Your task to perform on an android device: see sites visited before in the chrome app Image 0: 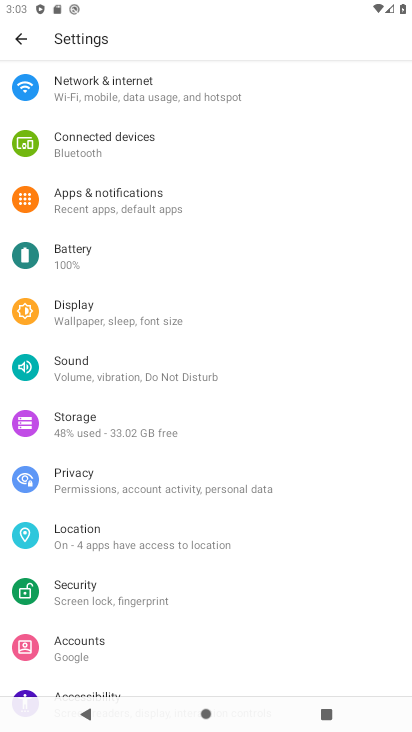
Step 0: press home button
Your task to perform on an android device: see sites visited before in the chrome app Image 1: 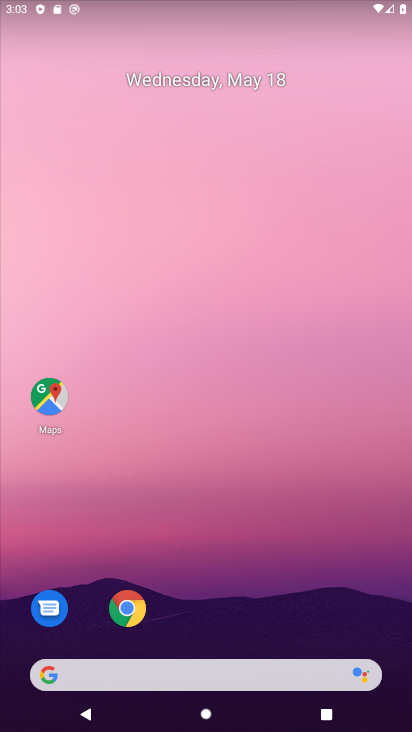
Step 1: drag from (163, 649) to (209, 313)
Your task to perform on an android device: see sites visited before in the chrome app Image 2: 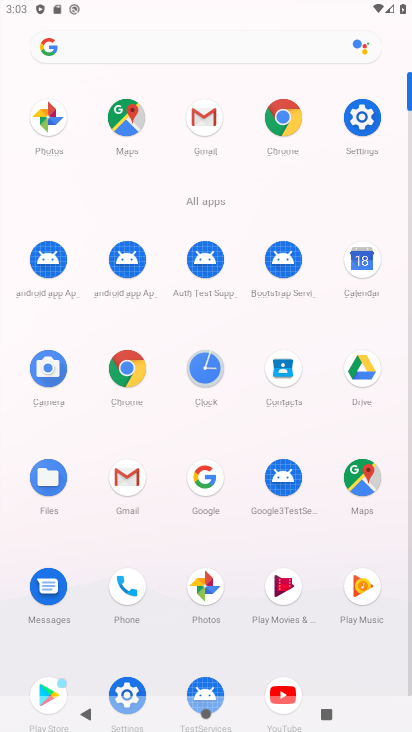
Step 2: click (291, 79)
Your task to perform on an android device: see sites visited before in the chrome app Image 3: 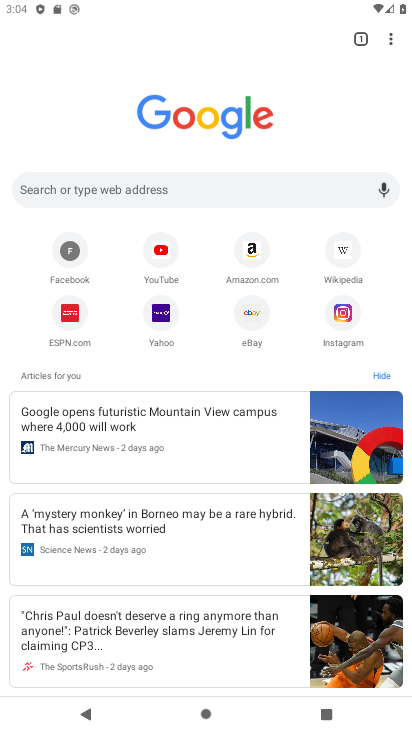
Step 3: task complete